Your task to perform on an android device: turn on location history Image 0: 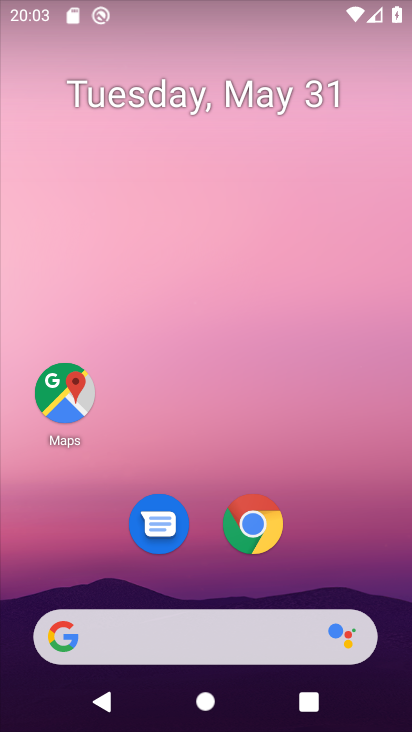
Step 0: drag from (306, 571) to (348, 60)
Your task to perform on an android device: turn on location history Image 1: 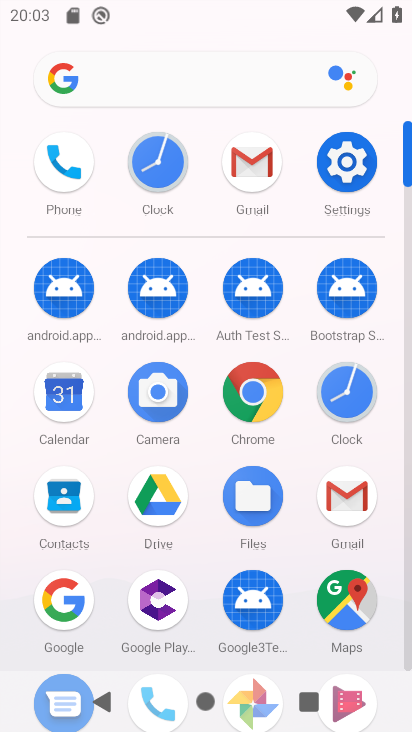
Step 1: click (350, 153)
Your task to perform on an android device: turn on location history Image 2: 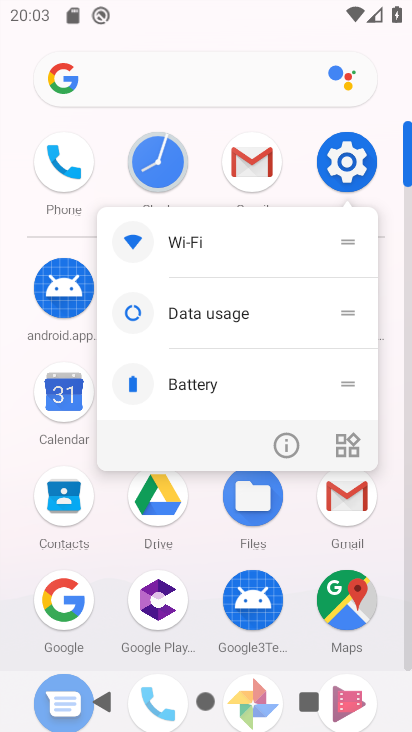
Step 2: click (350, 151)
Your task to perform on an android device: turn on location history Image 3: 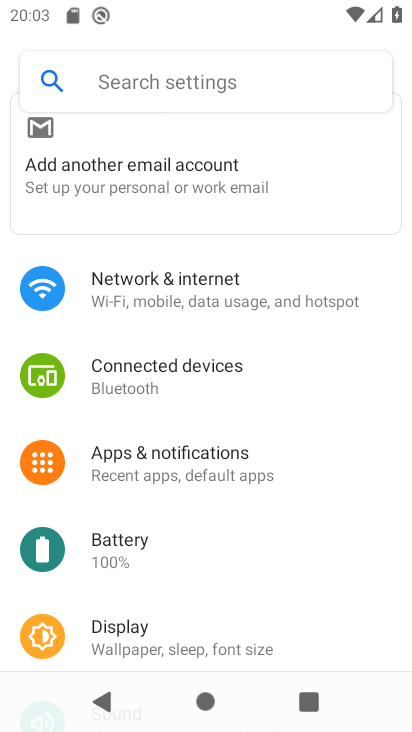
Step 3: drag from (196, 590) to (307, 38)
Your task to perform on an android device: turn on location history Image 4: 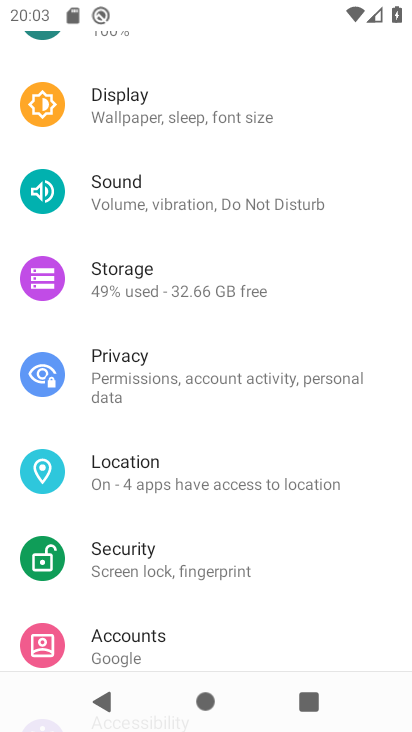
Step 4: click (189, 467)
Your task to perform on an android device: turn on location history Image 5: 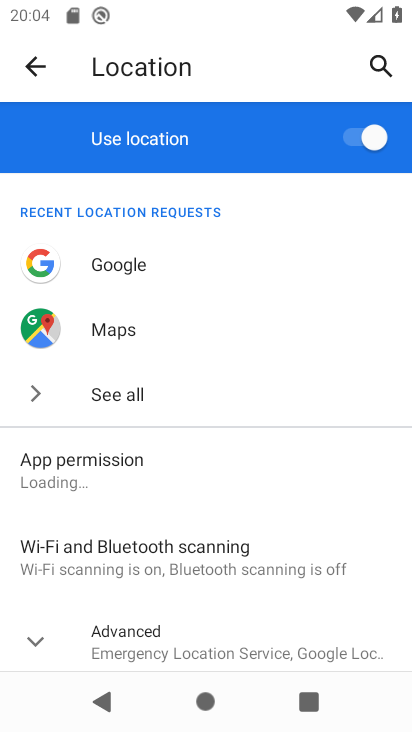
Step 5: click (25, 625)
Your task to perform on an android device: turn on location history Image 6: 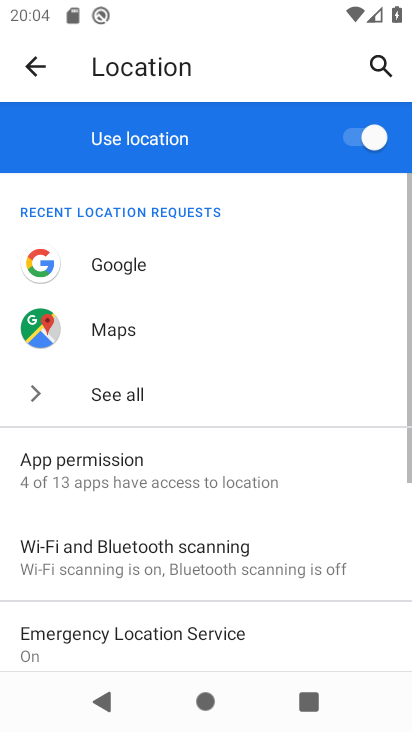
Step 6: task complete